Your task to perform on an android device: Go to internet settings Image 0: 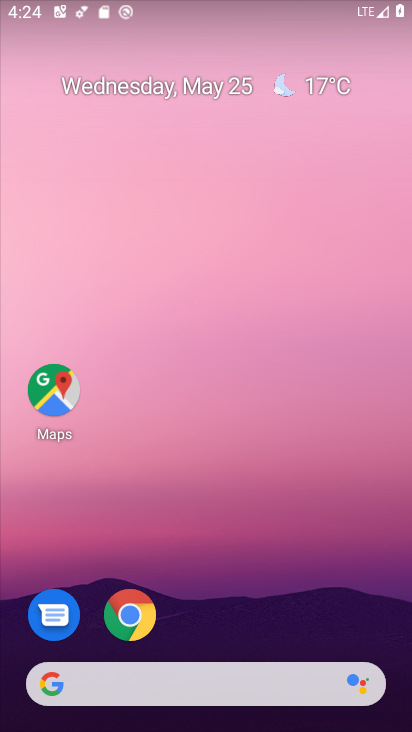
Step 0: drag from (286, 400) to (230, 38)
Your task to perform on an android device: Go to internet settings Image 1: 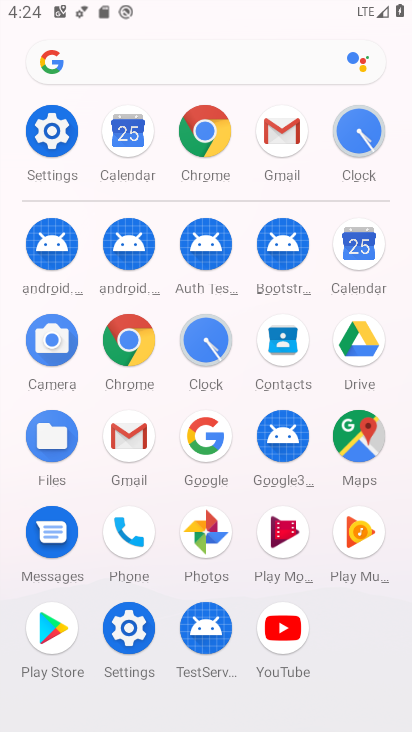
Step 1: click (51, 123)
Your task to perform on an android device: Go to internet settings Image 2: 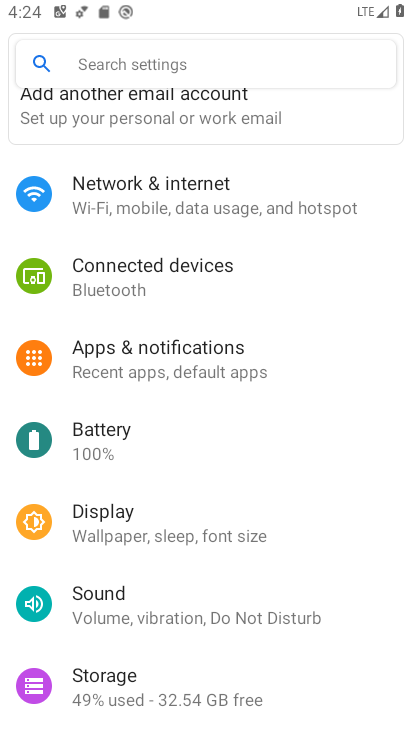
Step 2: click (223, 212)
Your task to perform on an android device: Go to internet settings Image 3: 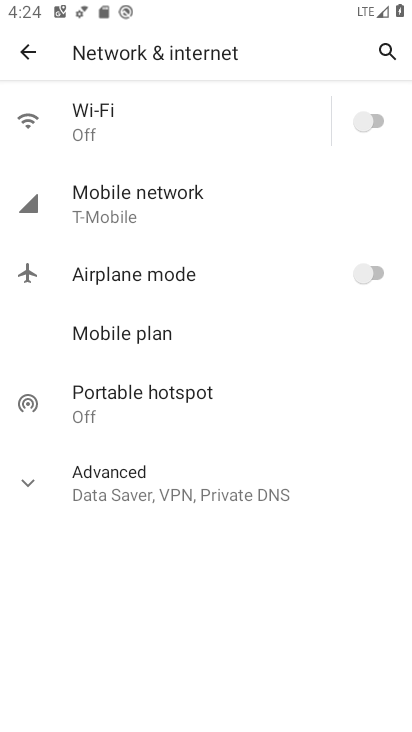
Step 3: task complete